Your task to perform on an android device: Show me productivity apps on the Play Store Image 0: 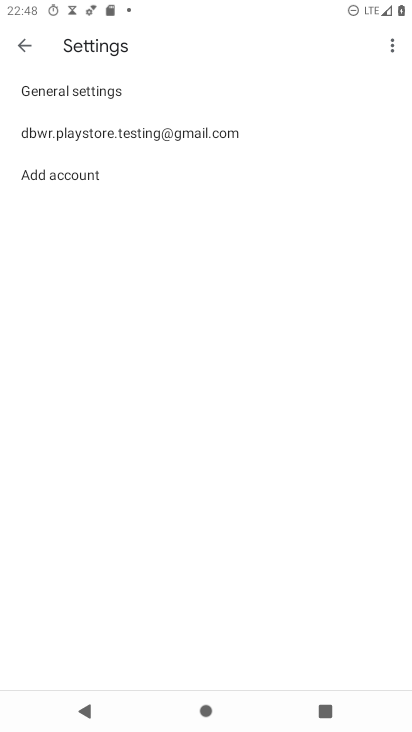
Step 0: press back button
Your task to perform on an android device: Show me productivity apps on the Play Store Image 1: 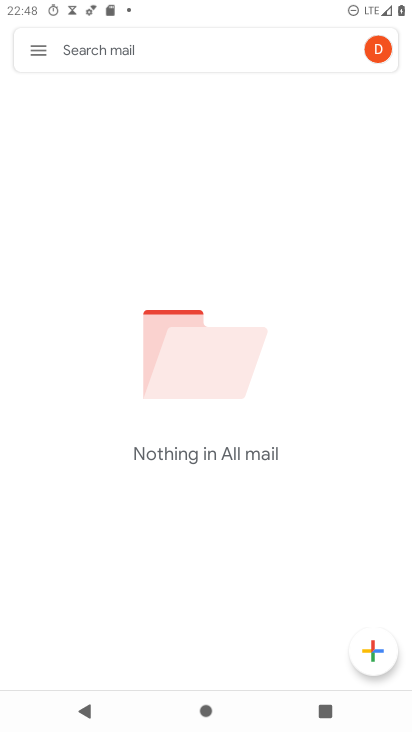
Step 1: press back button
Your task to perform on an android device: Show me productivity apps on the Play Store Image 2: 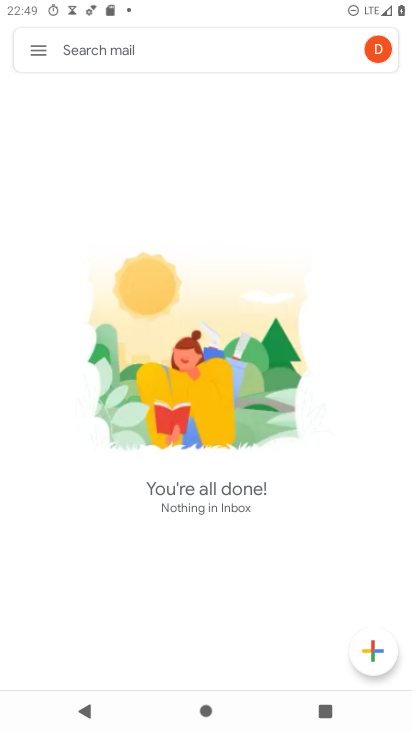
Step 2: press back button
Your task to perform on an android device: Show me productivity apps on the Play Store Image 3: 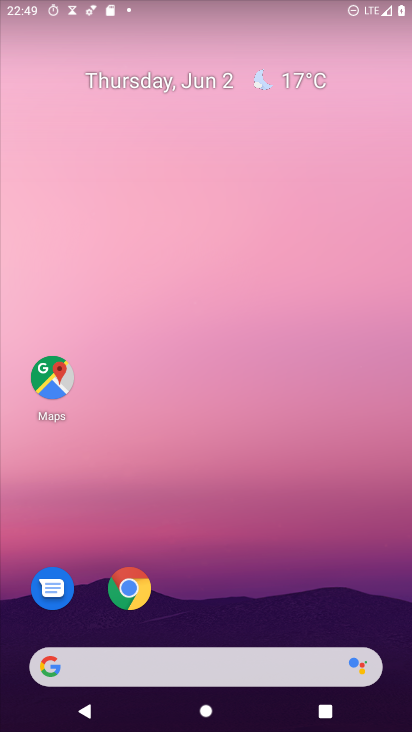
Step 3: drag from (233, 567) to (296, 158)
Your task to perform on an android device: Show me productivity apps on the Play Store Image 4: 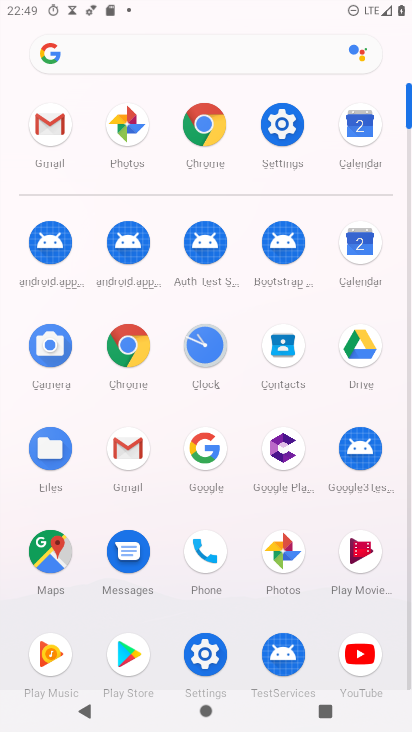
Step 4: click (112, 662)
Your task to perform on an android device: Show me productivity apps on the Play Store Image 5: 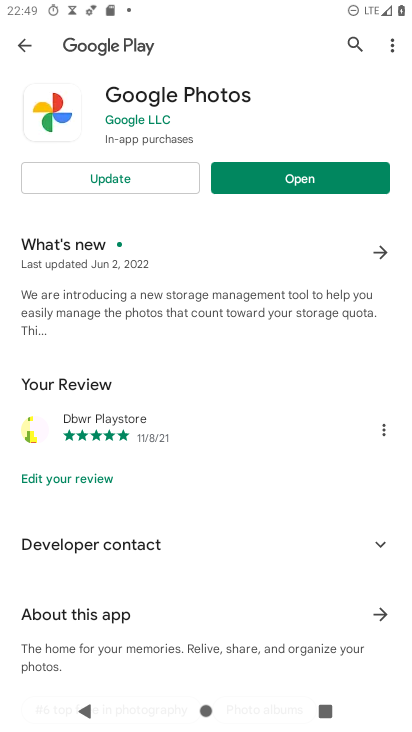
Step 5: click (23, 51)
Your task to perform on an android device: Show me productivity apps on the Play Store Image 6: 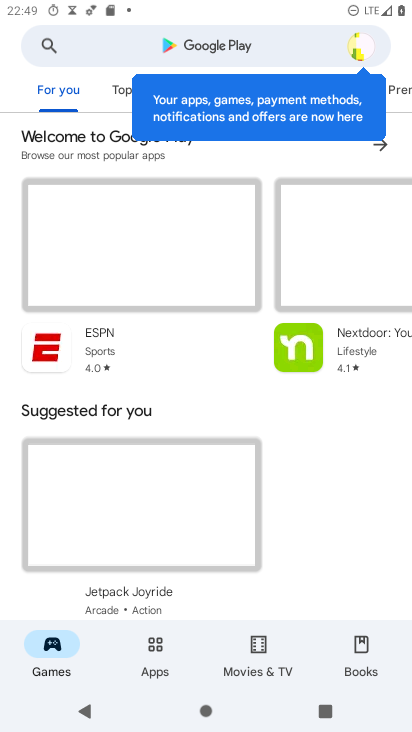
Step 6: click (159, 665)
Your task to perform on an android device: Show me productivity apps on the Play Store Image 7: 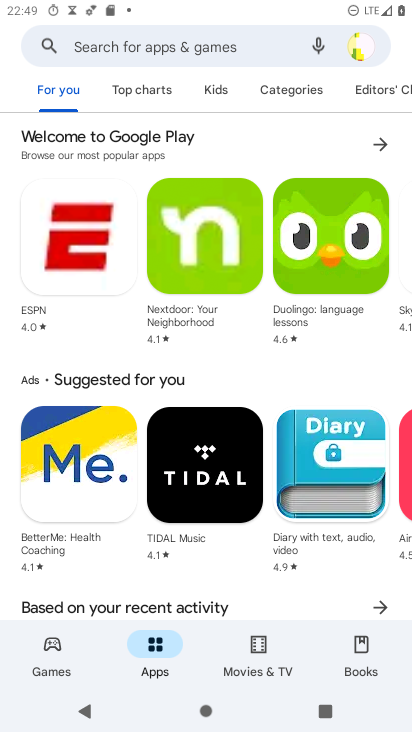
Step 7: drag from (225, 534) to (270, 135)
Your task to perform on an android device: Show me productivity apps on the Play Store Image 8: 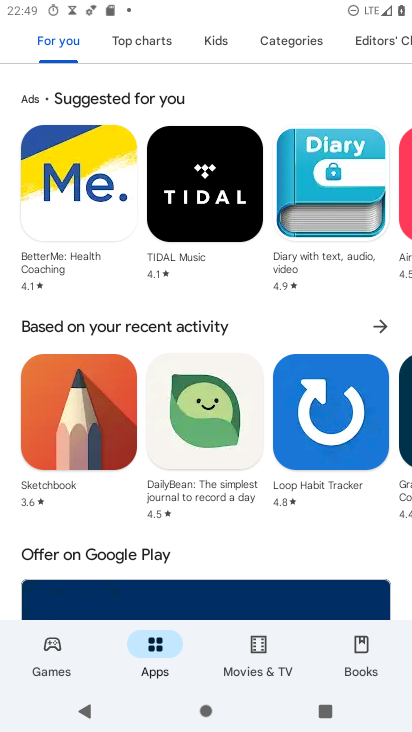
Step 8: drag from (250, 519) to (268, 83)
Your task to perform on an android device: Show me productivity apps on the Play Store Image 9: 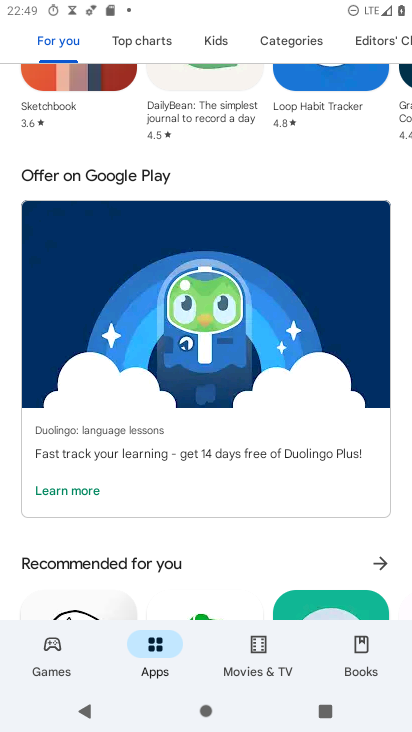
Step 9: drag from (199, 551) to (258, 191)
Your task to perform on an android device: Show me productivity apps on the Play Store Image 10: 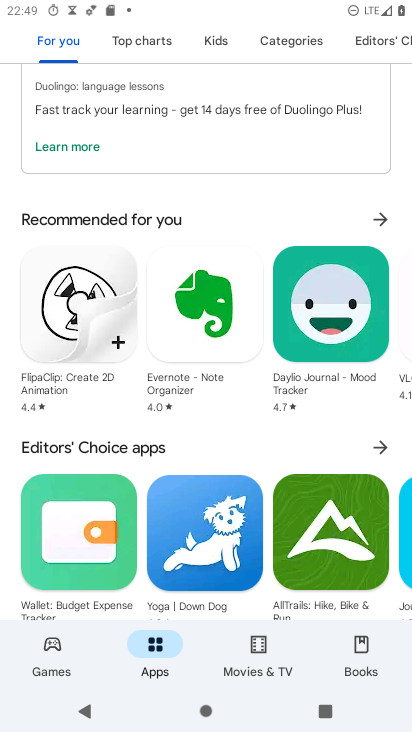
Step 10: drag from (196, 575) to (242, 108)
Your task to perform on an android device: Show me productivity apps on the Play Store Image 11: 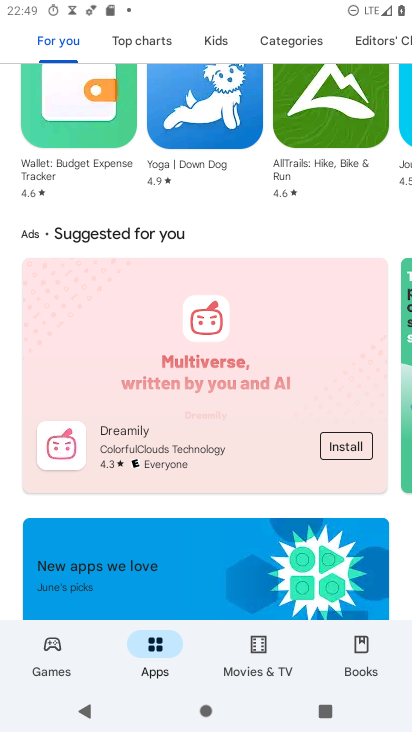
Step 11: drag from (162, 539) to (217, 129)
Your task to perform on an android device: Show me productivity apps on the Play Store Image 12: 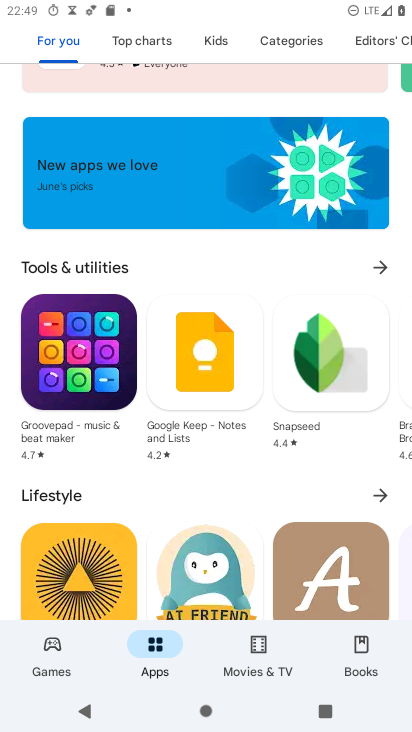
Step 12: drag from (209, 559) to (265, 128)
Your task to perform on an android device: Show me productivity apps on the Play Store Image 13: 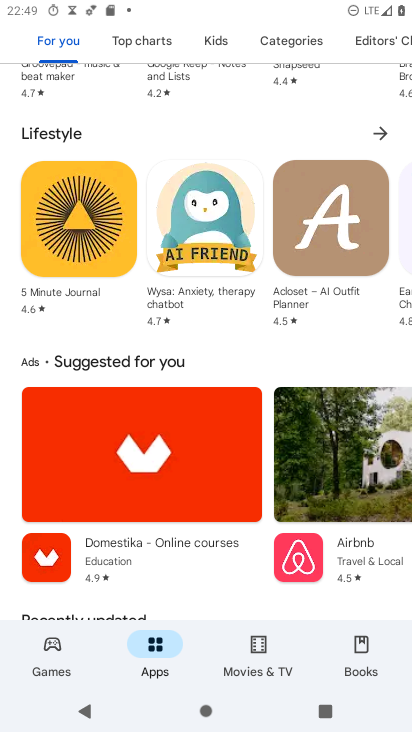
Step 13: drag from (172, 557) to (223, 148)
Your task to perform on an android device: Show me productivity apps on the Play Store Image 14: 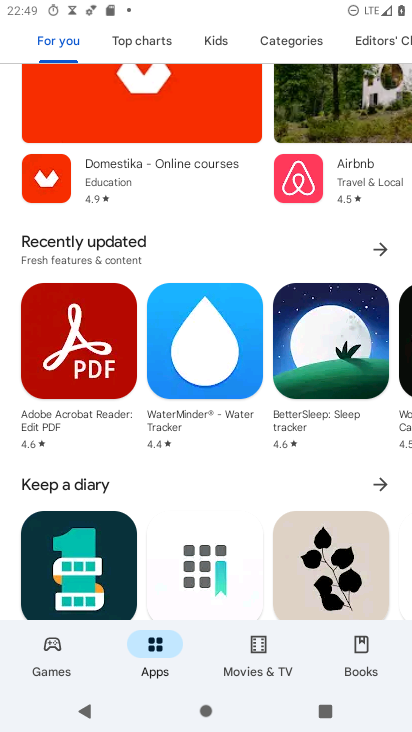
Step 14: drag from (160, 616) to (246, 93)
Your task to perform on an android device: Show me productivity apps on the Play Store Image 15: 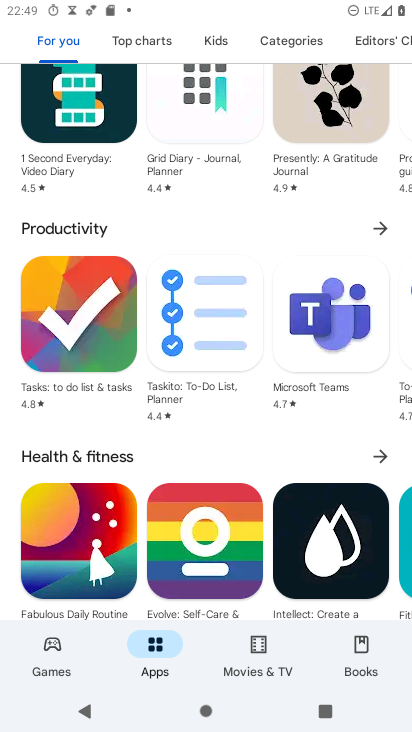
Step 15: drag from (203, 553) to (261, 68)
Your task to perform on an android device: Show me productivity apps on the Play Store Image 16: 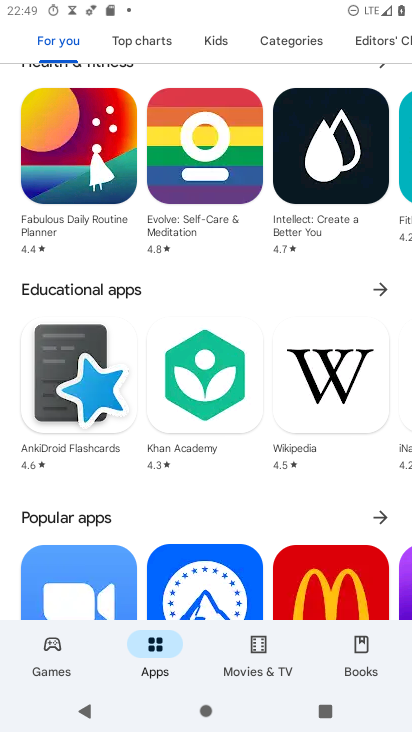
Step 16: drag from (207, 584) to (266, 93)
Your task to perform on an android device: Show me productivity apps on the Play Store Image 17: 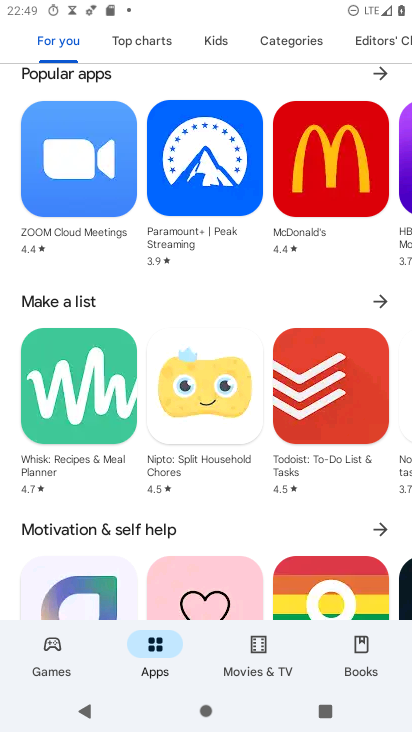
Step 17: drag from (194, 532) to (272, 111)
Your task to perform on an android device: Show me productivity apps on the Play Store Image 18: 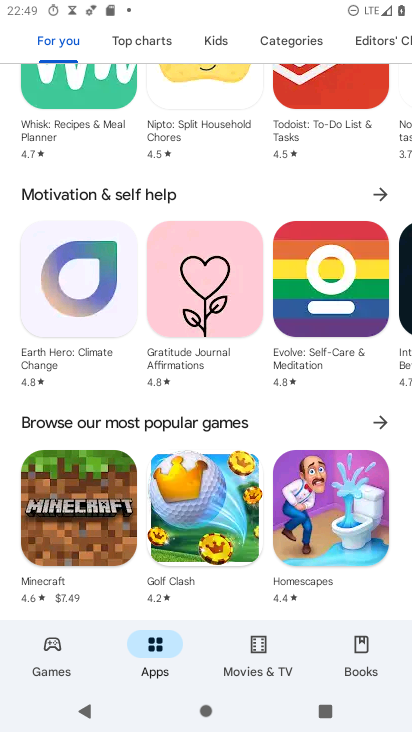
Step 18: drag from (242, 555) to (309, 68)
Your task to perform on an android device: Show me productivity apps on the Play Store Image 19: 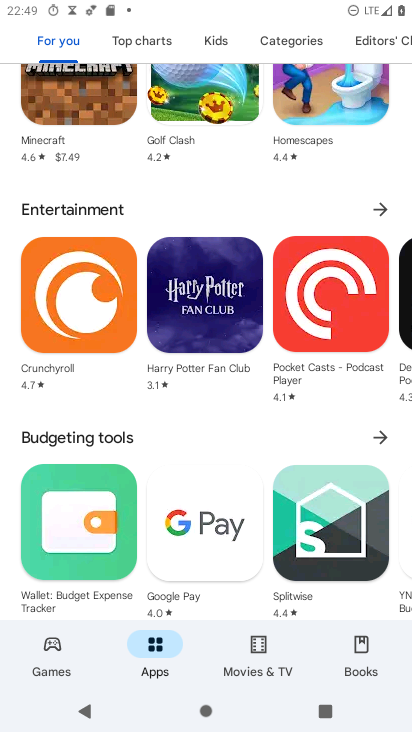
Step 19: drag from (213, 548) to (277, 79)
Your task to perform on an android device: Show me productivity apps on the Play Store Image 20: 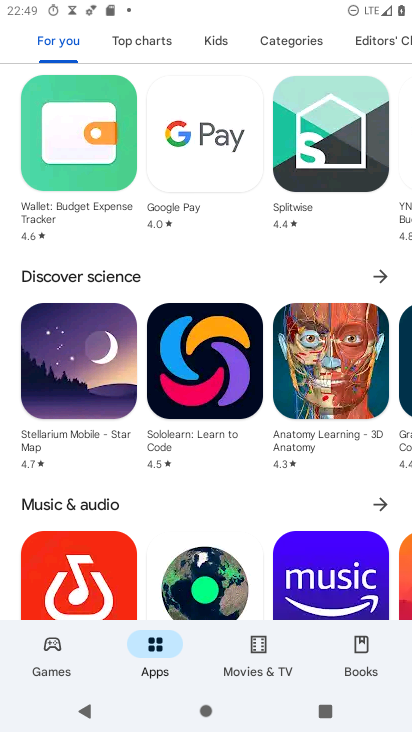
Step 20: drag from (169, 569) to (238, 137)
Your task to perform on an android device: Show me productivity apps on the Play Store Image 21: 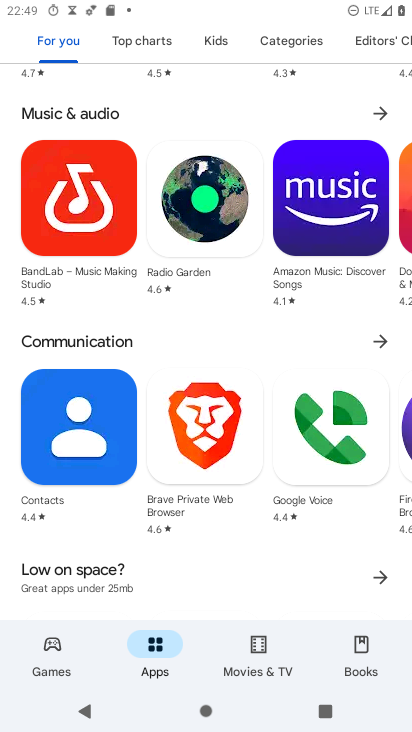
Step 21: drag from (183, 595) to (256, 75)
Your task to perform on an android device: Show me productivity apps on the Play Store Image 22: 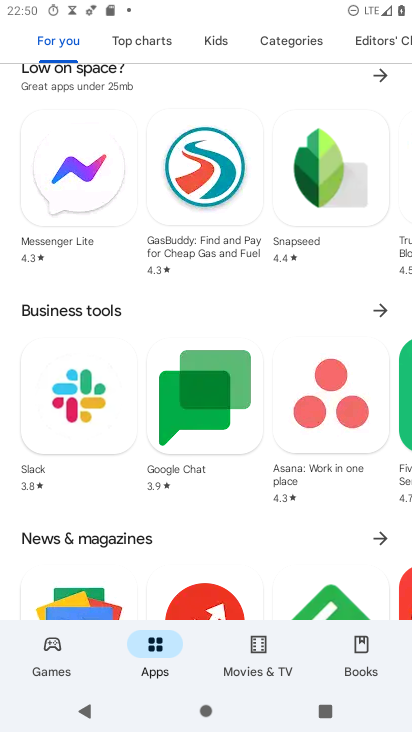
Step 22: drag from (205, 570) to (271, 115)
Your task to perform on an android device: Show me productivity apps on the Play Store Image 23: 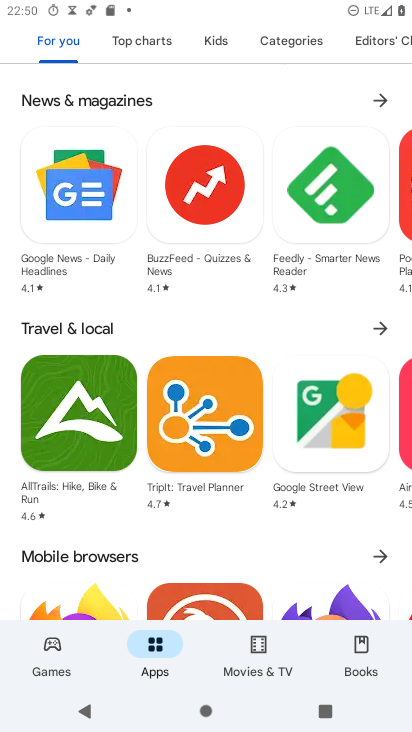
Step 23: drag from (211, 570) to (273, 71)
Your task to perform on an android device: Show me productivity apps on the Play Store Image 24: 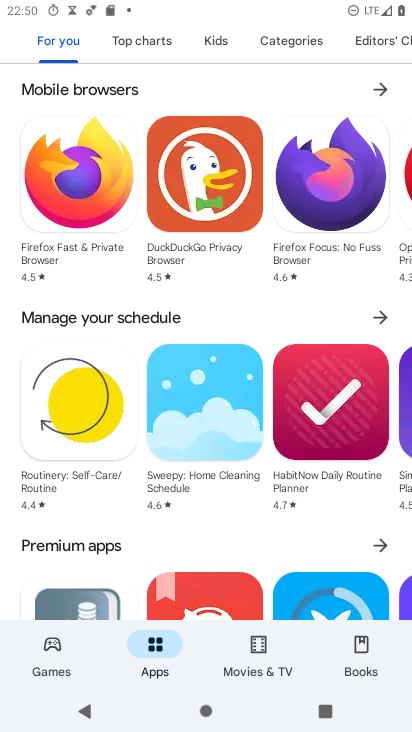
Step 24: drag from (142, 565) to (256, 112)
Your task to perform on an android device: Show me productivity apps on the Play Store Image 25: 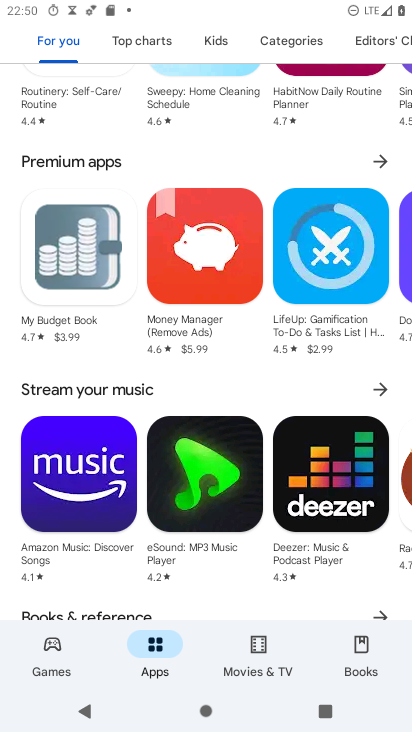
Step 25: drag from (193, 567) to (265, 53)
Your task to perform on an android device: Show me productivity apps on the Play Store Image 26: 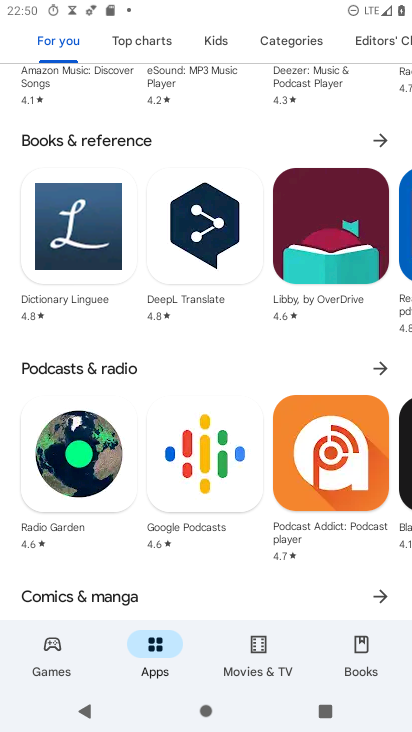
Step 26: drag from (230, 575) to (298, 88)
Your task to perform on an android device: Show me productivity apps on the Play Store Image 27: 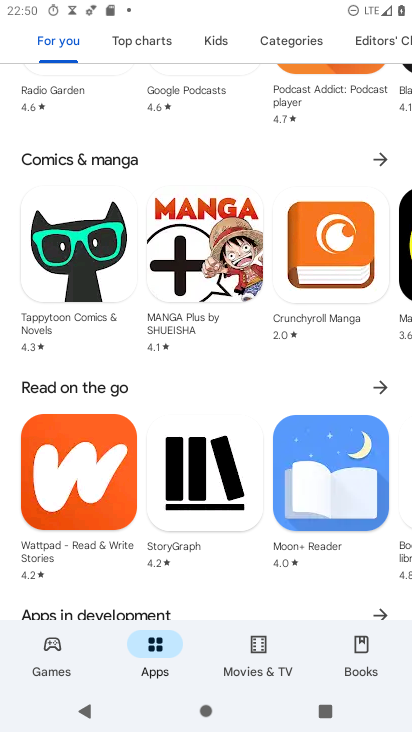
Step 27: drag from (192, 559) to (253, 113)
Your task to perform on an android device: Show me productivity apps on the Play Store Image 28: 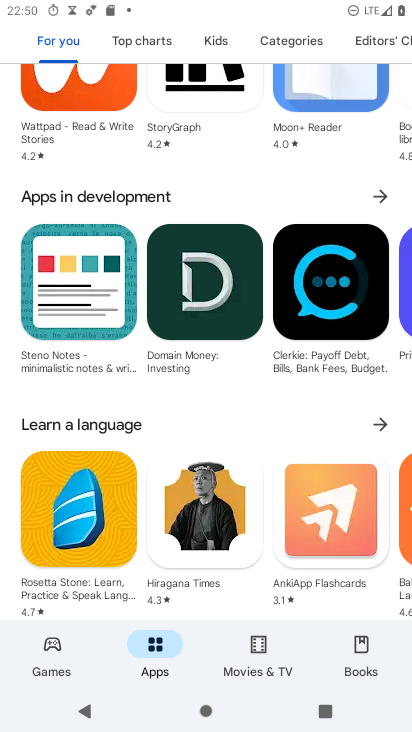
Step 28: drag from (211, 574) to (208, 668)
Your task to perform on an android device: Show me productivity apps on the Play Store Image 29: 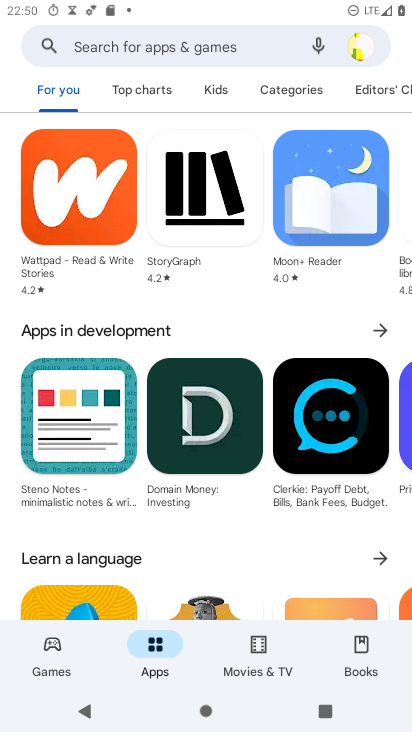
Step 29: drag from (193, 171) to (166, 558)
Your task to perform on an android device: Show me productivity apps on the Play Store Image 30: 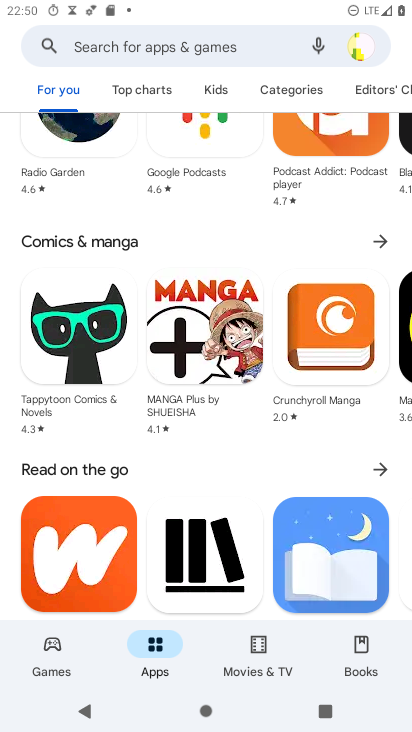
Step 30: drag from (221, 214) to (166, 673)
Your task to perform on an android device: Show me productivity apps on the Play Store Image 31: 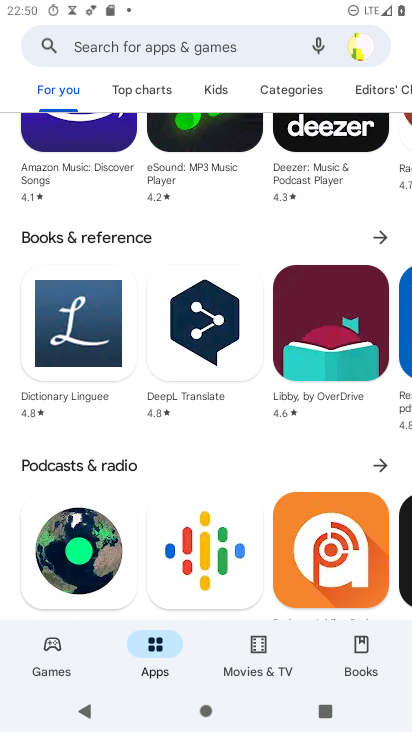
Step 31: drag from (174, 233) to (174, 614)
Your task to perform on an android device: Show me productivity apps on the Play Store Image 32: 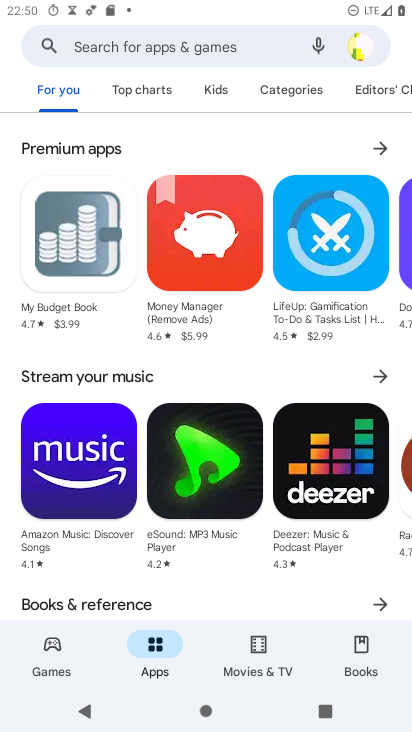
Step 32: drag from (165, 195) to (138, 588)
Your task to perform on an android device: Show me productivity apps on the Play Store Image 33: 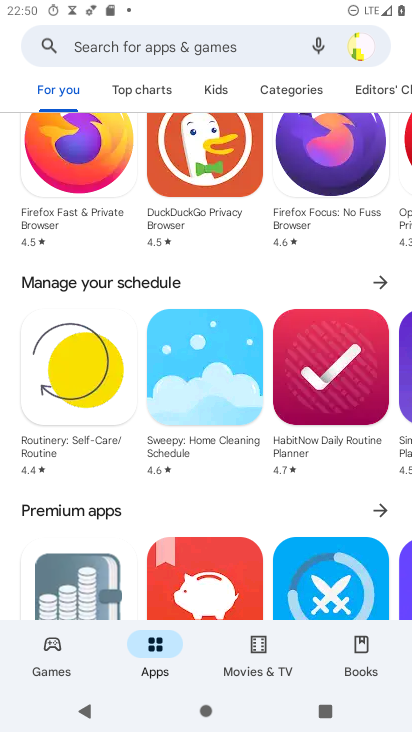
Step 33: drag from (148, 186) to (144, 575)
Your task to perform on an android device: Show me productivity apps on the Play Store Image 34: 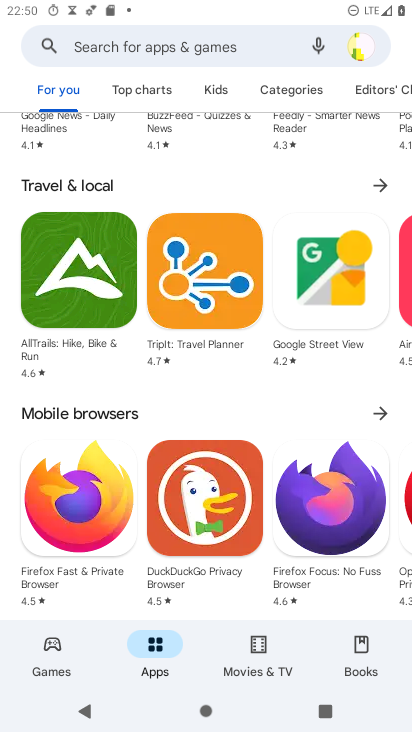
Step 34: drag from (143, 196) to (143, 684)
Your task to perform on an android device: Show me productivity apps on the Play Store Image 35: 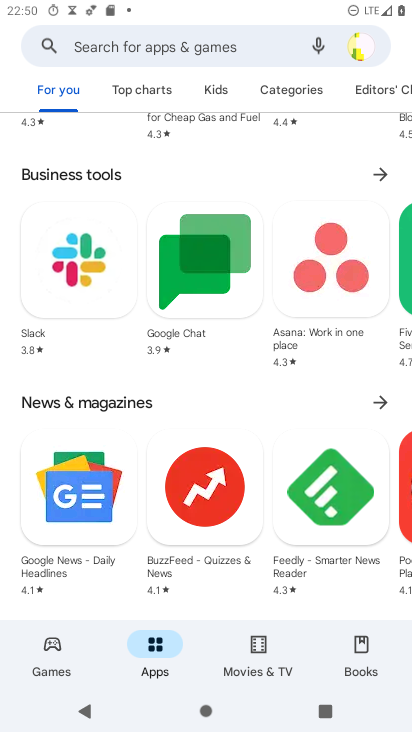
Step 35: drag from (155, 189) to (159, 640)
Your task to perform on an android device: Show me productivity apps on the Play Store Image 36: 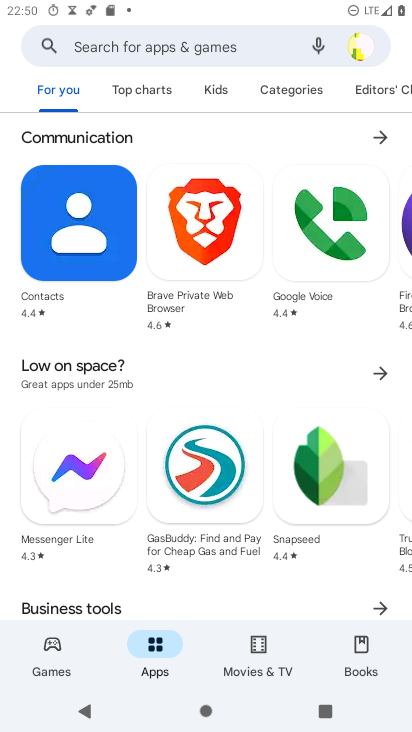
Step 36: drag from (137, 212) to (136, 712)
Your task to perform on an android device: Show me productivity apps on the Play Store Image 37: 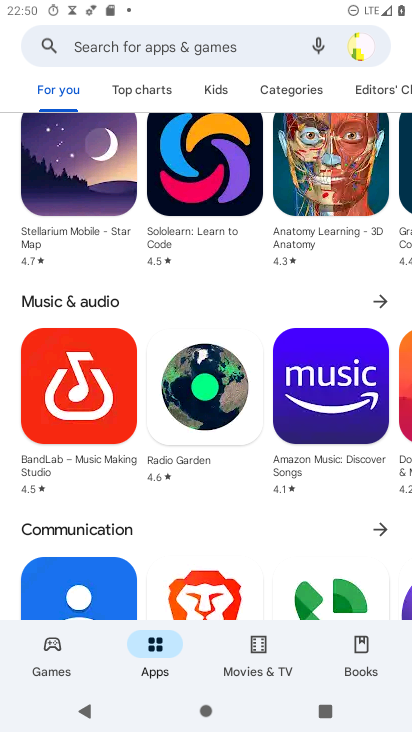
Step 37: drag from (153, 172) to (163, 687)
Your task to perform on an android device: Show me productivity apps on the Play Store Image 38: 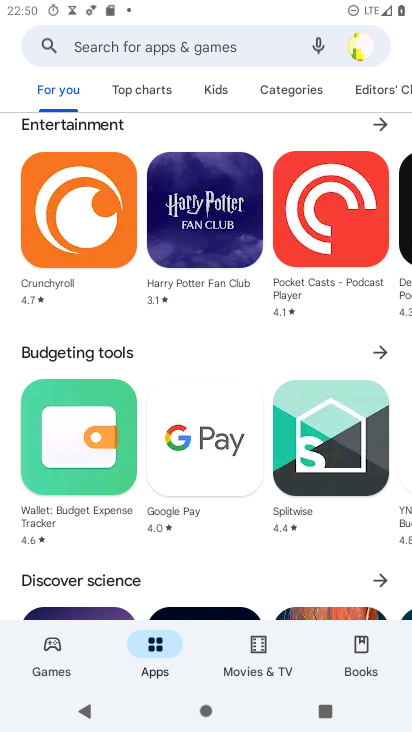
Step 38: drag from (133, 168) to (133, 644)
Your task to perform on an android device: Show me productivity apps on the Play Store Image 39: 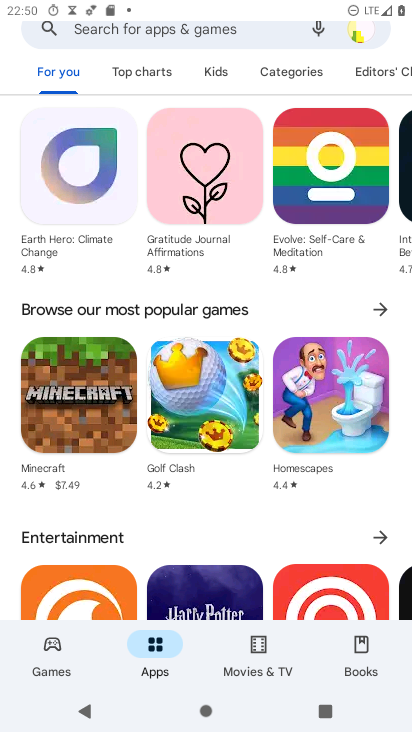
Step 39: drag from (143, 185) to (159, 362)
Your task to perform on an android device: Show me productivity apps on the Play Store Image 40: 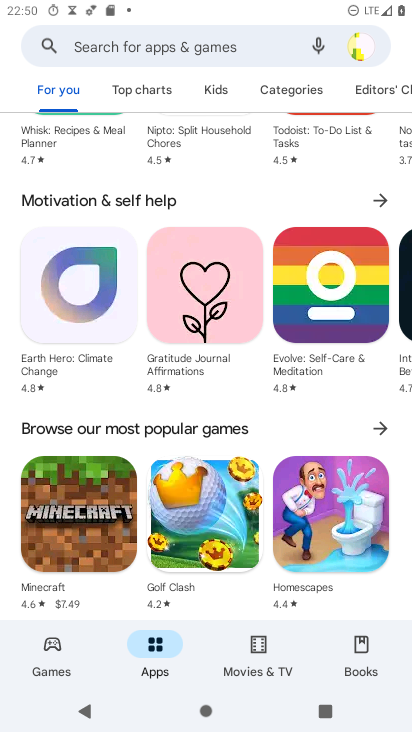
Step 40: click (155, 647)
Your task to perform on an android device: Show me productivity apps on the Play Store Image 41: 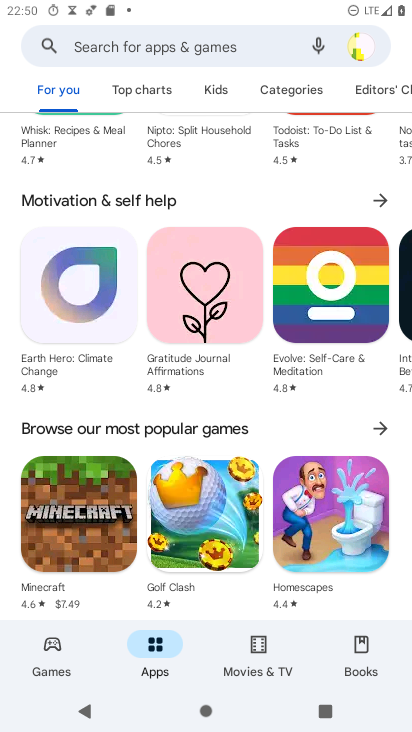
Step 41: drag from (198, 213) to (208, 474)
Your task to perform on an android device: Show me productivity apps on the Play Store Image 42: 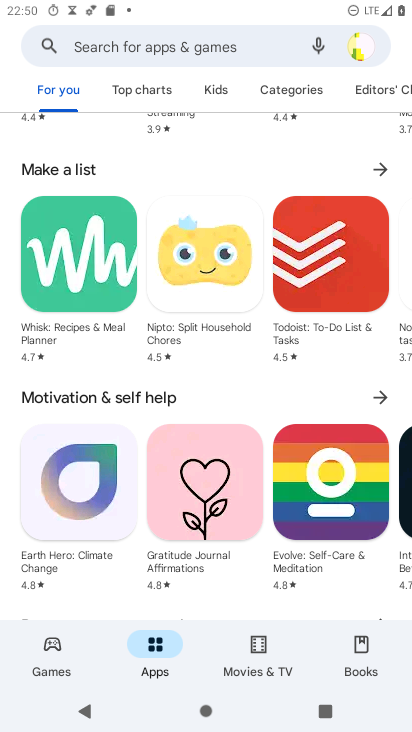
Step 42: drag from (167, 204) to (146, 597)
Your task to perform on an android device: Show me productivity apps on the Play Store Image 43: 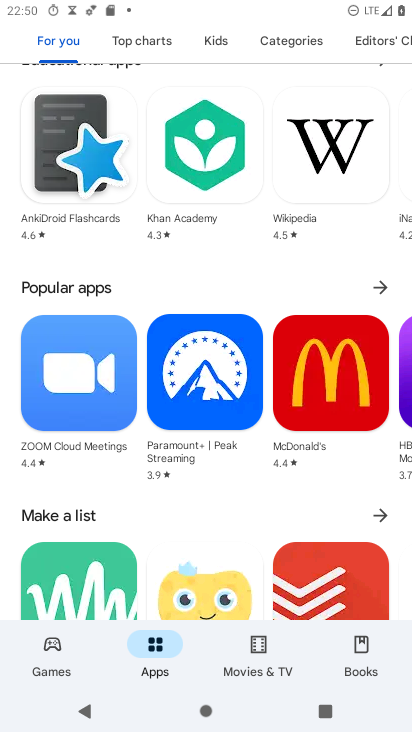
Step 43: drag from (177, 212) to (158, 596)
Your task to perform on an android device: Show me productivity apps on the Play Store Image 44: 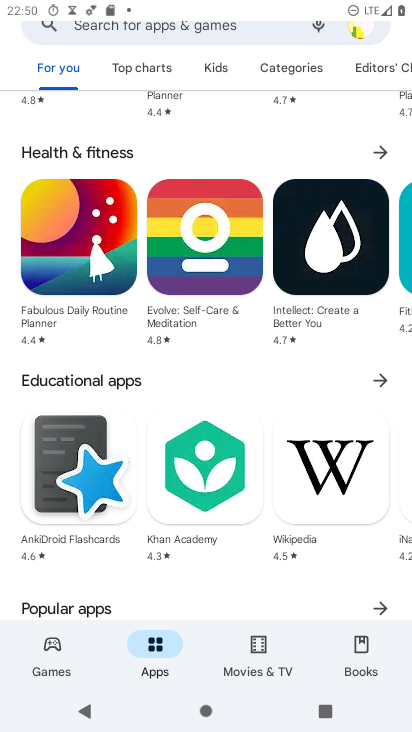
Step 44: drag from (160, 151) to (125, 562)
Your task to perform on an android device: Show me productivity apps on the Play Store Image 45: 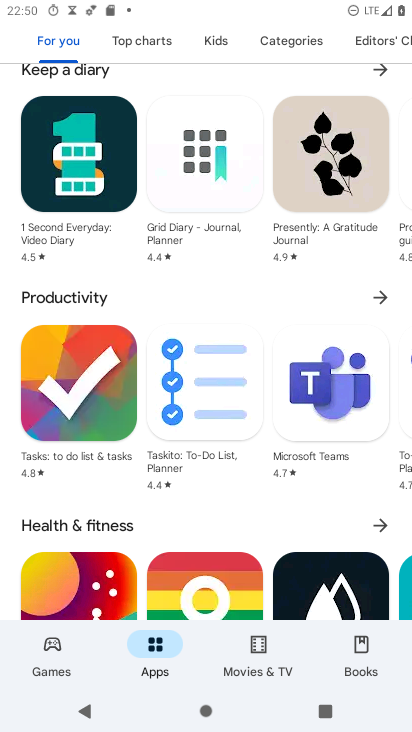
Step 45: click (369, 302)
Your task to perform on an android device: Show me productivity apps on the Play Store Image 46: 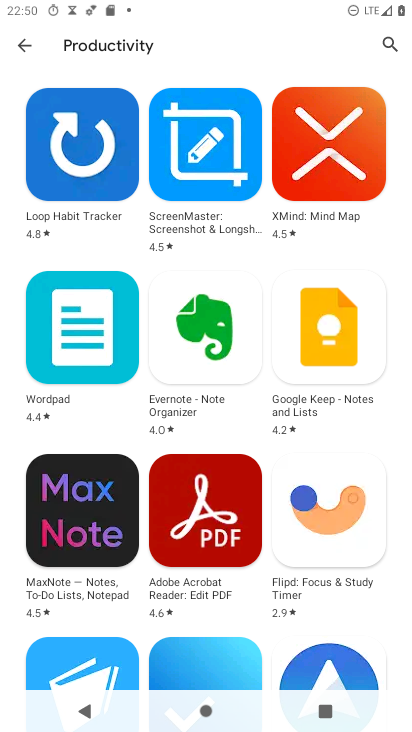
Step 46: task complete